Your task to perform on an android device: Show me productivity apps on the Play Store Image 0: 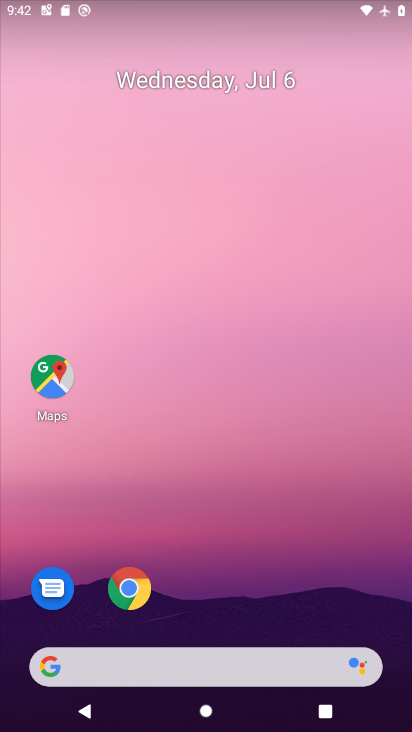
Step 0: drag from (196, 662) to (319, 236)
Your task to perform on an android device: Show me productivity apps on the Play Store Image 1: 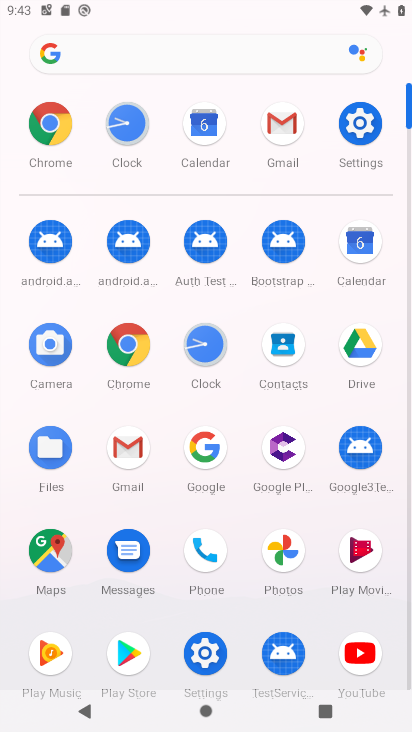
Step 1: click (118, 646)
Your task to perform on an android device: Show me productivity apps on the Play Store Image 2: 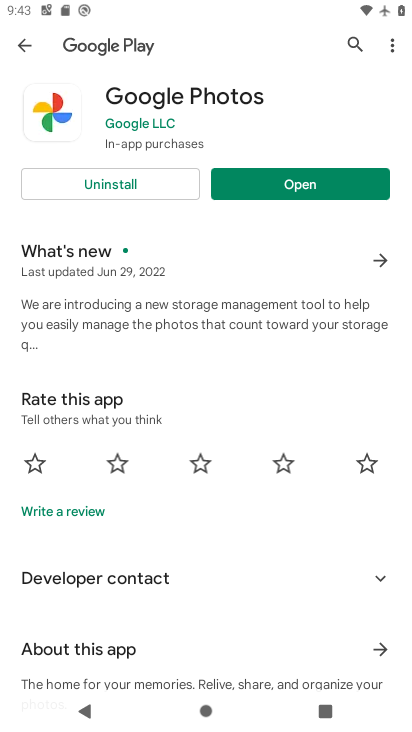
Step 2: click (24, 46)
Your task to perform on an android device: Show me productivity apps on the Play Store Image 3: 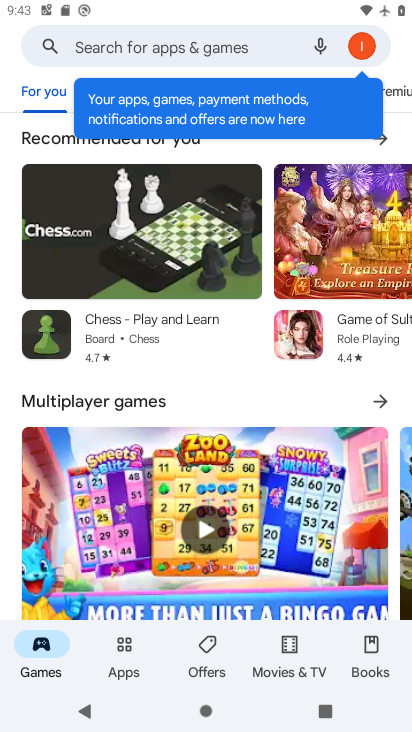
Step 3: click (116, 657)
Your task to perform on an android device: Show me productivity apps on the Play Store Image 4: 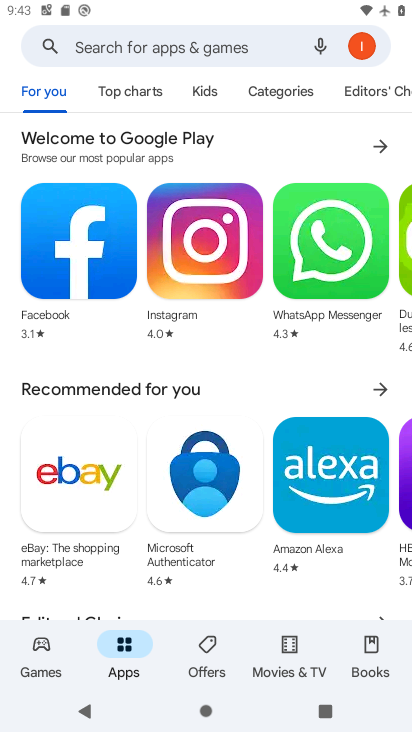
Step 4: click (297, 83)
Your task to perform on an android device: Show me productivity apps on the Play Store Image 5: 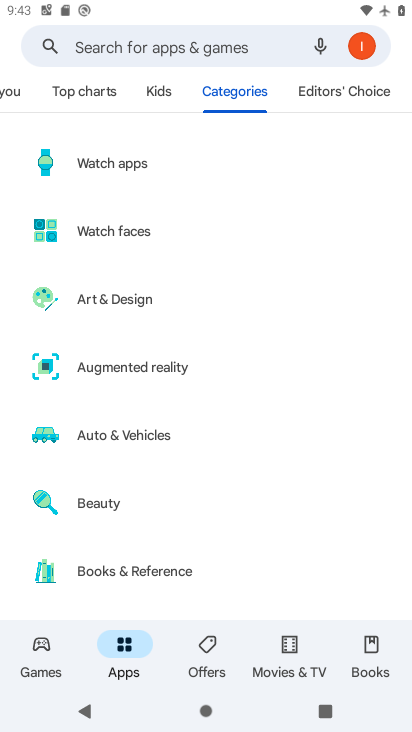
Step 5: drag from (164, 525) to (326, 19)
Your task to perform on an android device: Show me productivity apps on the Play Store Image 6: 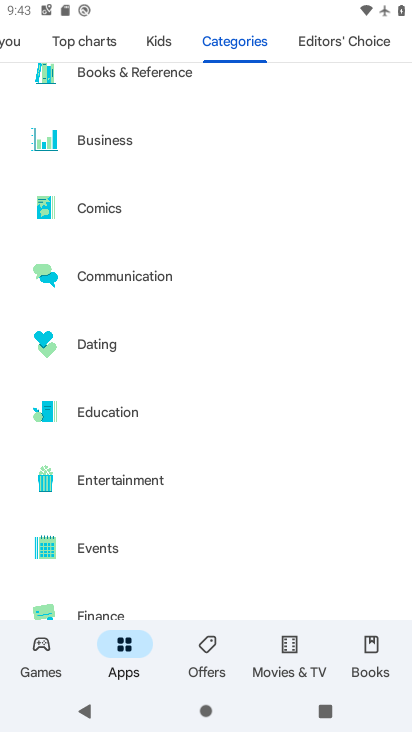
Step 6: drag from (185, 563) to (325, 84)
Your task to perform on an android device: Show me productivity apps on the Play Store Image 7: 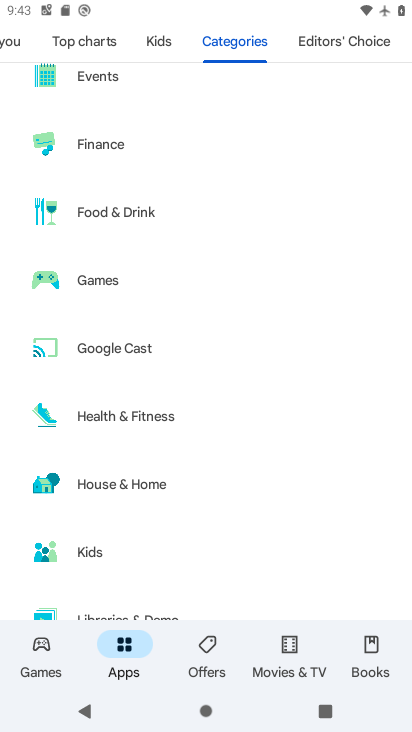
Step 7: drag from (204, 525) to (332, 47)
Your task to perform on an android device: Show me productivity apps on the Play Store Image 8: 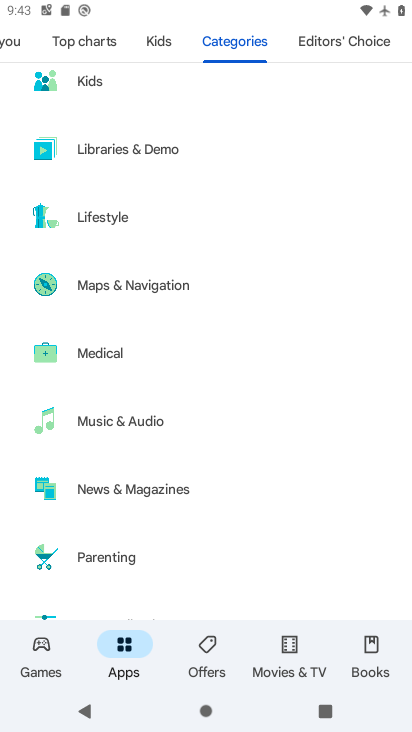
Step 8: drag from (254, 242) to (334, 47)
Your task to perform on an android device: Show me productivity apps on the Play Store Image 9: 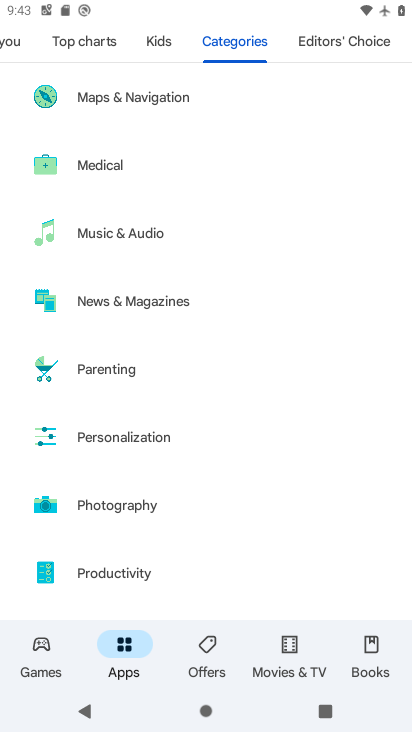
Step 9: click (132, 571)
Your task to perform on an android device: Show me productivity apps on the Play Store Image 10: 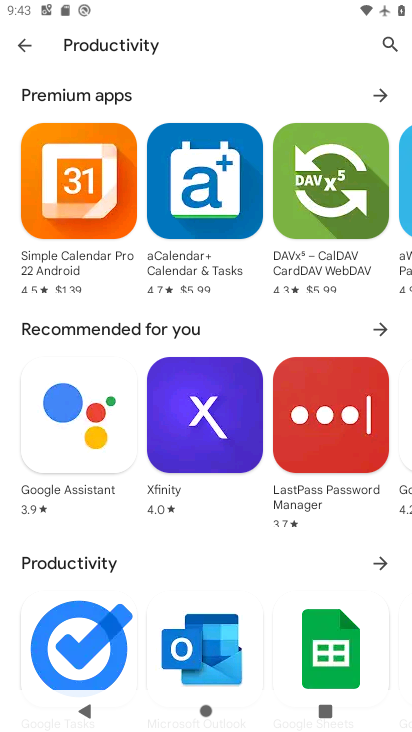
Step 10: task complete